Your task to perform on an android device: Open network settings Image 0: 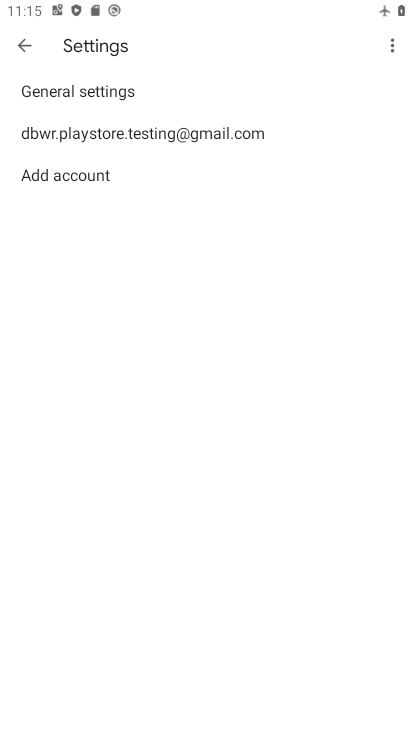
Step 0: press home button
Your task to perform on an android device: Open network settings Image 1: 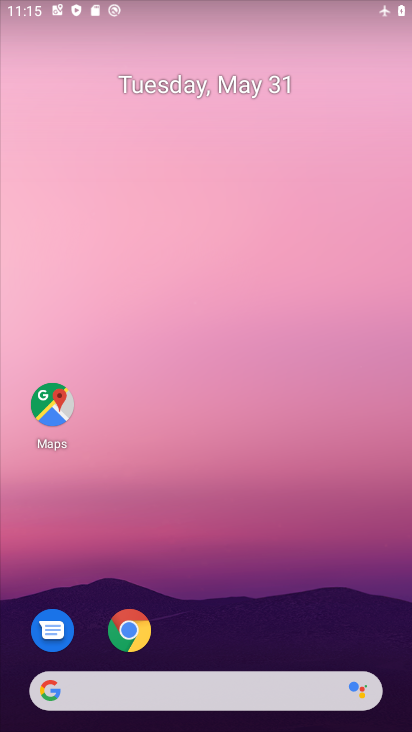
Step 1: drag from (237, 630) to (307, 207)
Your task to perform on an android device: Open network settings Image 2: 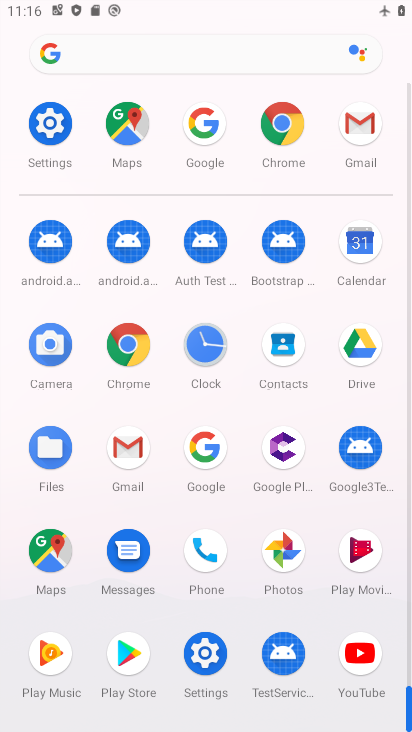
Step 2: click (61, 150)
Your task to perform on an android device: Open network settings Image 3: 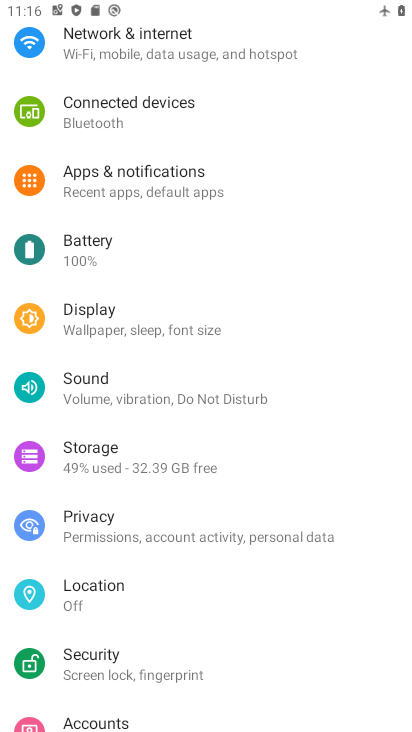
Step 3: drag from (175, 223) to (164, 524)
Your task to perform on an android device: Open network settings Image 4: 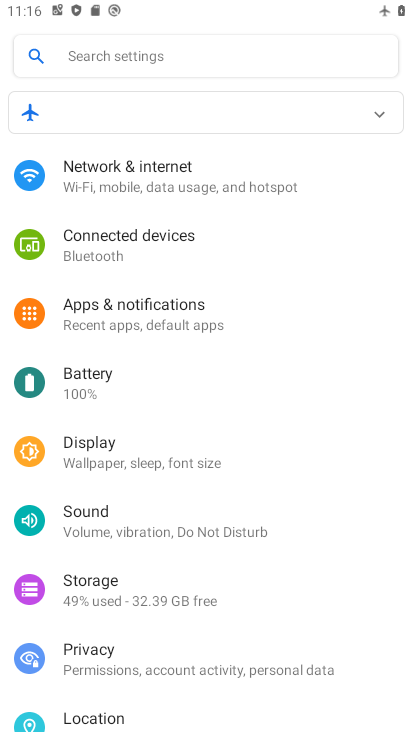
Step 4: drag from (192, 369) to (198, 577)
Your task to perform on an android device: Open network settings Image 5: 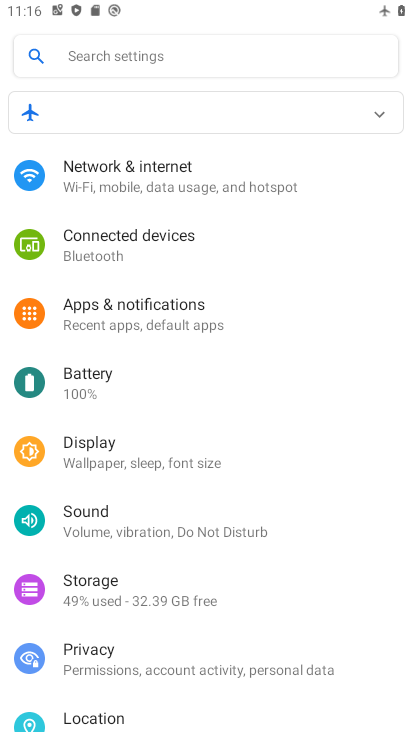
Step 5: click (237, 174)
Your task to perform on an android device: Open network settings Image 6: 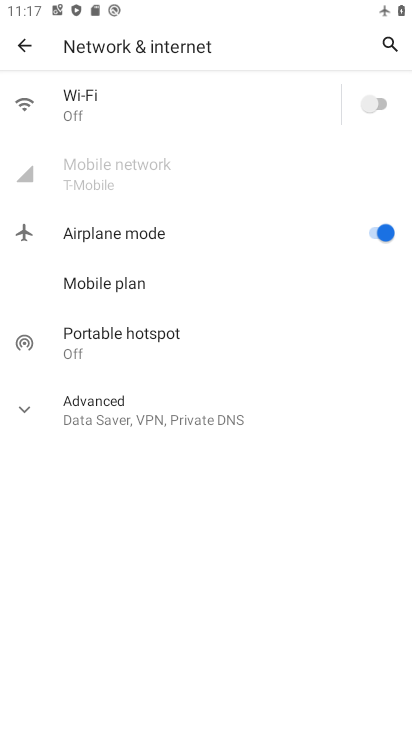
Step 6: task complete